Your task to perform on an android device: Turn on the flashlight Image 0: 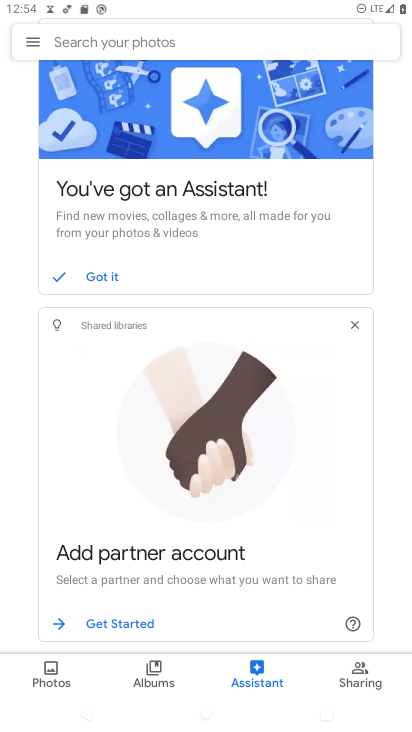
Step 0: drag from (216, 9) to (388, 491)
Your task to perform on an android device: Turn on the flashlight Image 1: 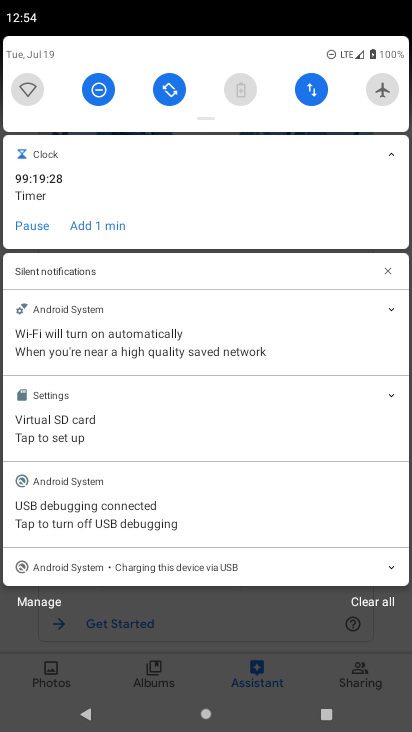
Step 1: task complete